Your task to perform on an android device: Open Chrome and go to settings Image 0: 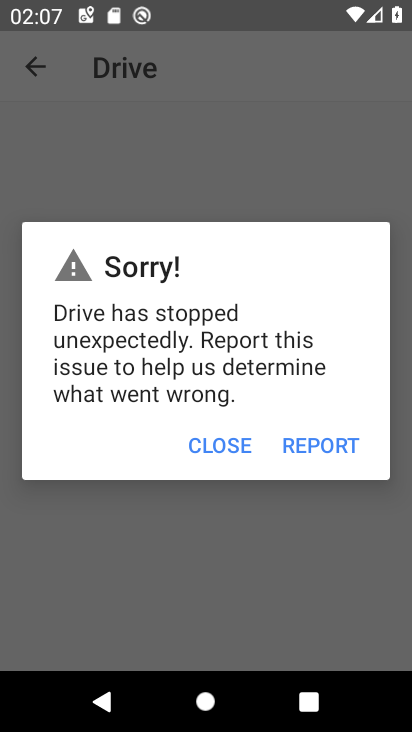
Step 0: press home button
Your task to perform on an android device: Open Chrome and go to settings Image 1: 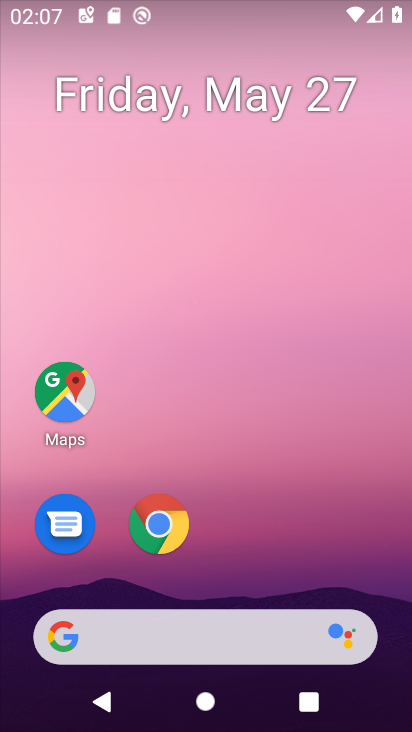
Step 1: click (160, 531)
Your task to perform on an android device: Open Chrome and go to settings Image 2: 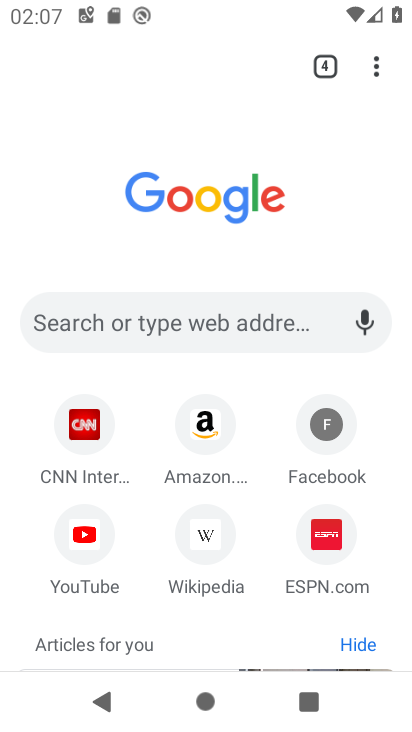
Step 2: click (375, 70)
Your task to perform on an android device: Open Chrome and go to settings Image 3: 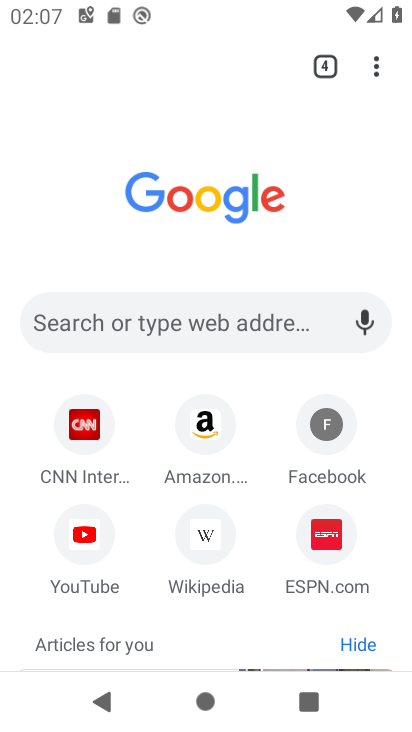
Step 3: click (375, 70)
Your task to perform on an android device: Open Chrome and go to settings Image 4: 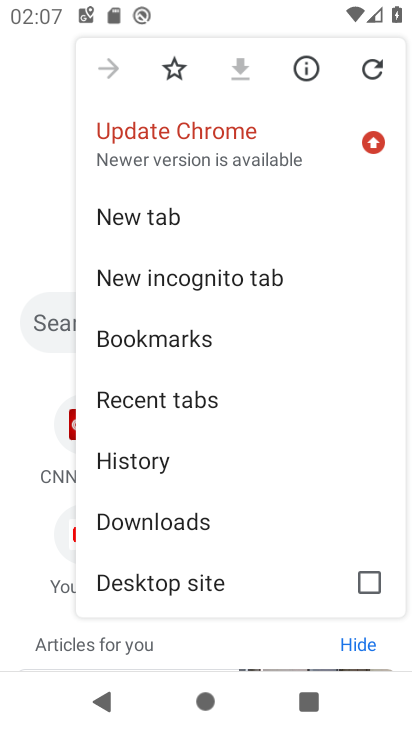
Step 4: drag from (274, 511) to (268, 186)
Your task to perform on an android device: Open Chrome and go to settings Image 5: 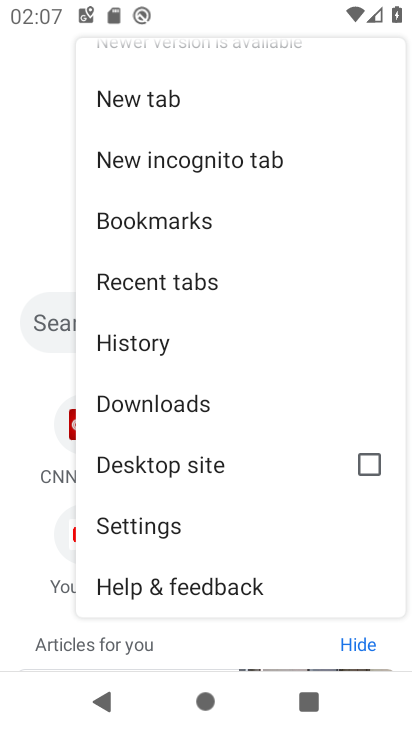
Step 5: click (207, 520)
Your task to perform on an android device: Open Chrome and go to settings Image 6: 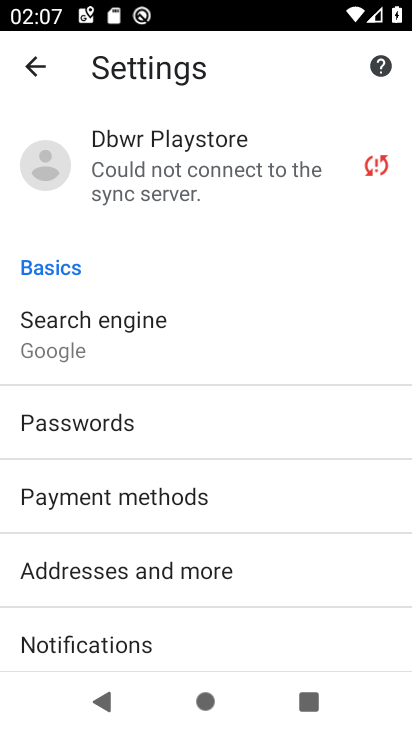
Step 6: task complete